Your task to perform on an android device: Open maps Image 0: 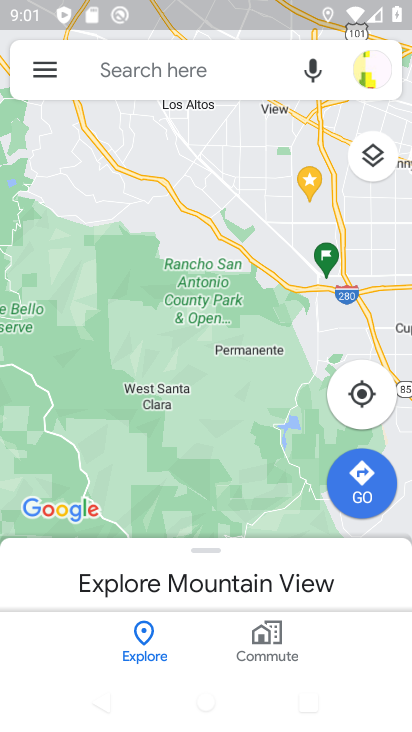
Step 0: task complete